Your task to perform on an android device: Is it going to rain today? Image 0: 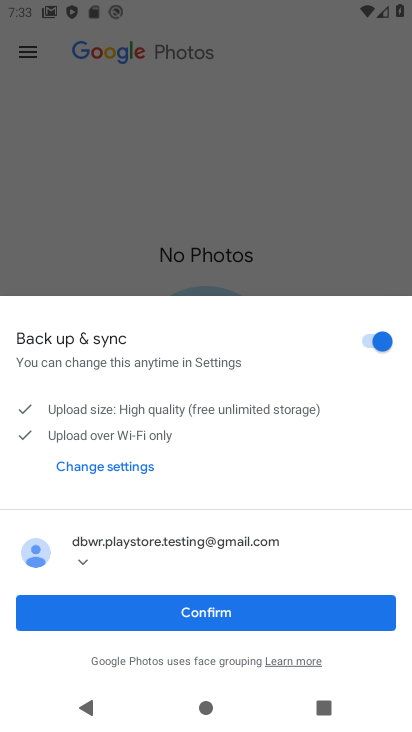
Step 0: press home button
Your task to perform on an android device: Is it going to rain today? Image 1: 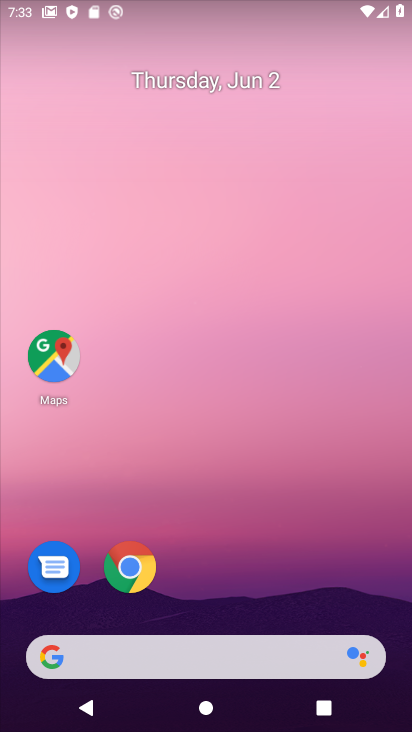
Step 1: drag from (270, 556) to (215, 146)
Your task to perform on an android device: Is it going to rain today? Image 2: 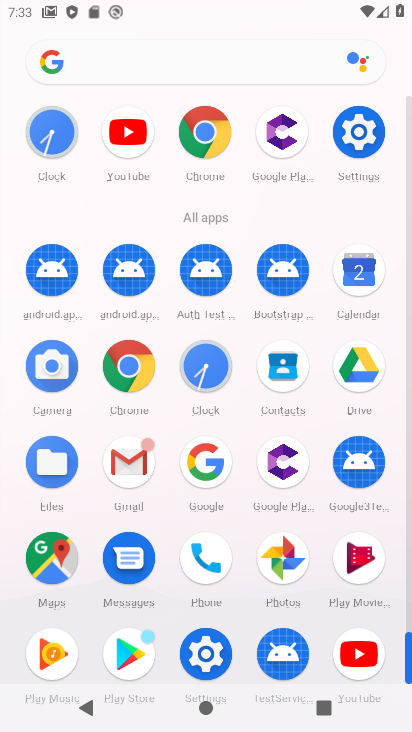
Step 2: click (200, 463)
Your task to perform on an android device: Is it going to rain today? Image 3: 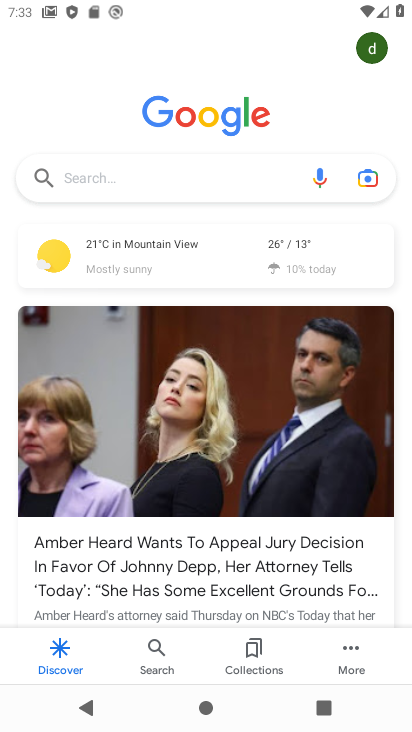
Step 3: click (173, 255)
Your task to perform on an android device: Is it going to rain today? Image 4: 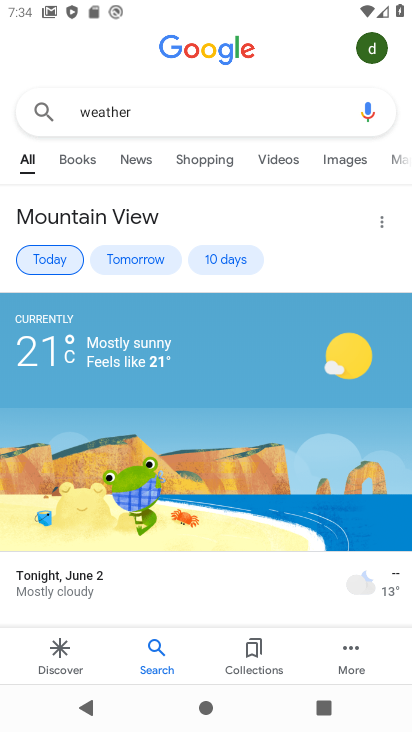
Step 4: task complete